Your task to perform on an android device: check android version Image 0: 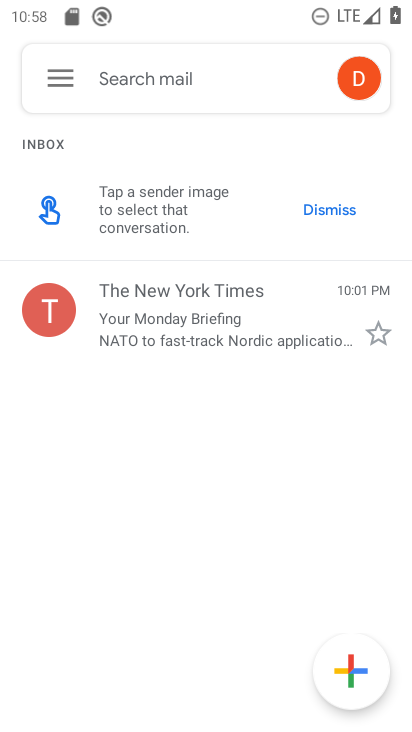
Step 0: press home button
Your task to perform on an android device: check android version Image 1: 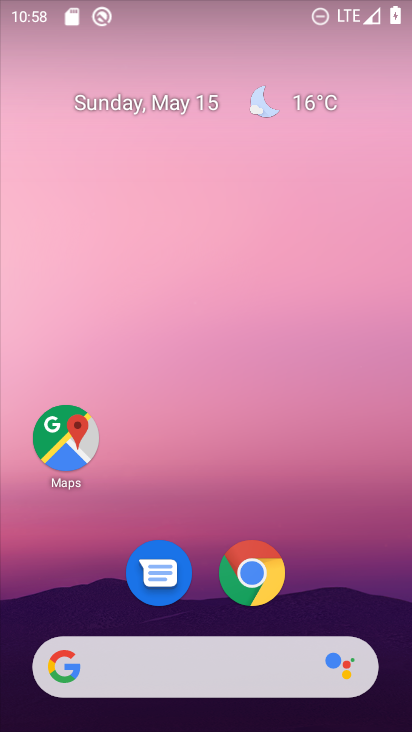
Step 1: drag from (351, 560) to (327, 65)
Your task to perform on an android device: check android version Image 2: 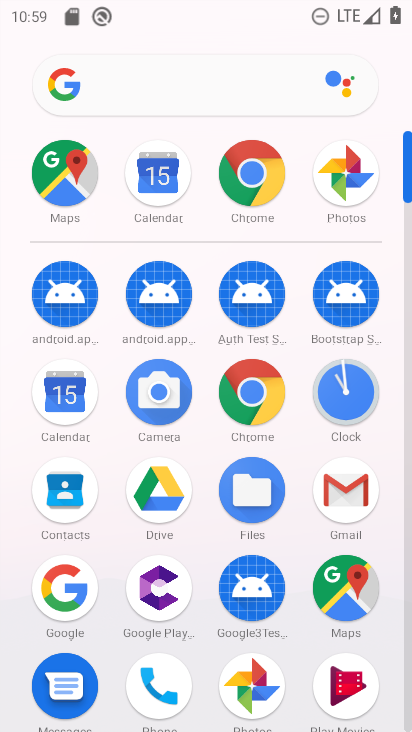
Step 2: click (405, 640)
Your task to perform on an android device: check android version Image 3: 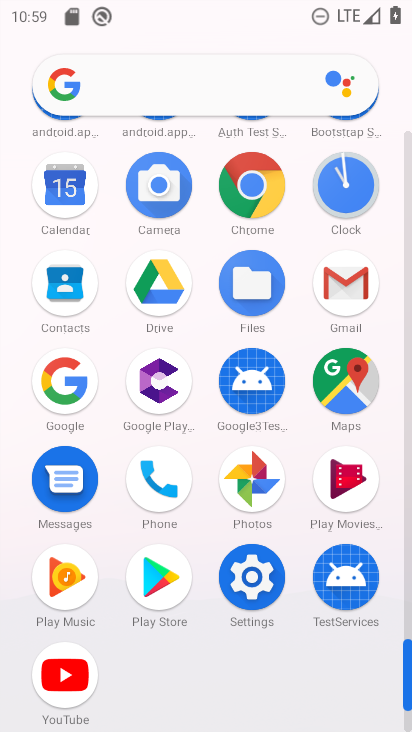
Step 3: click (261, 577)
Your task to perform on an android device: check android version Image 4: 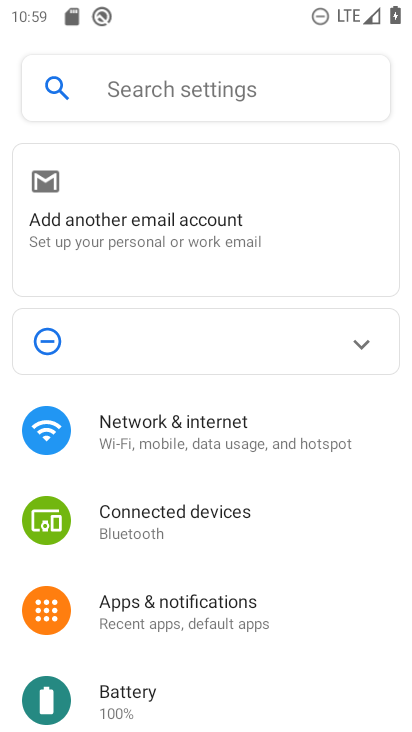
Step 4: drag from (261, 577) to (258, 282)
Your task to perform on an android device: check android version Image 5: 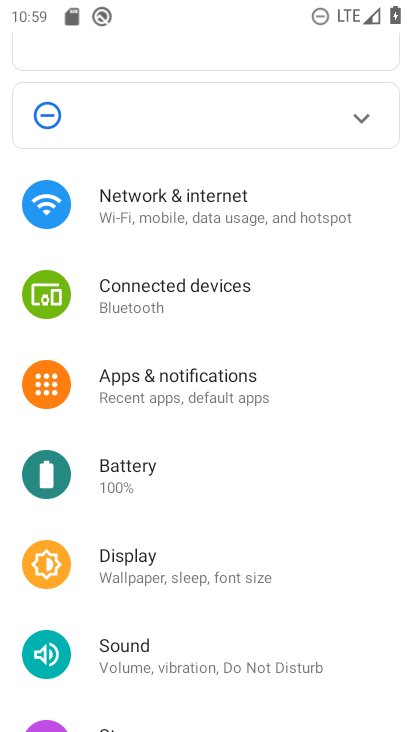
Step 5: drag from (218, 579) to (222, 169)
Your task to perform on an android device: check android version Image 6: 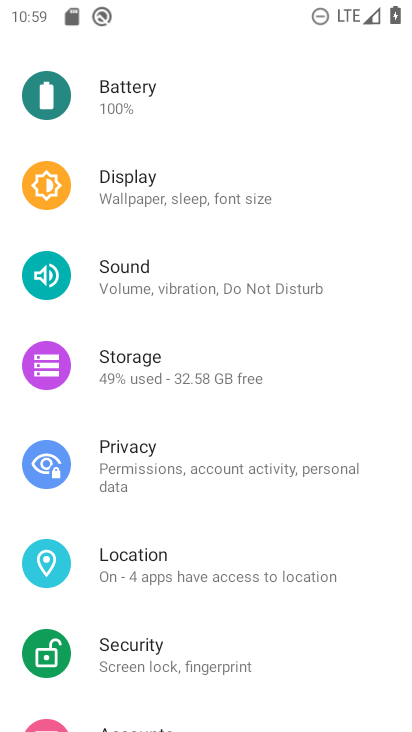
Step 6: drag from (198, 607) to (219, 144)
Your task to perform on an android device: check android version Image 7: 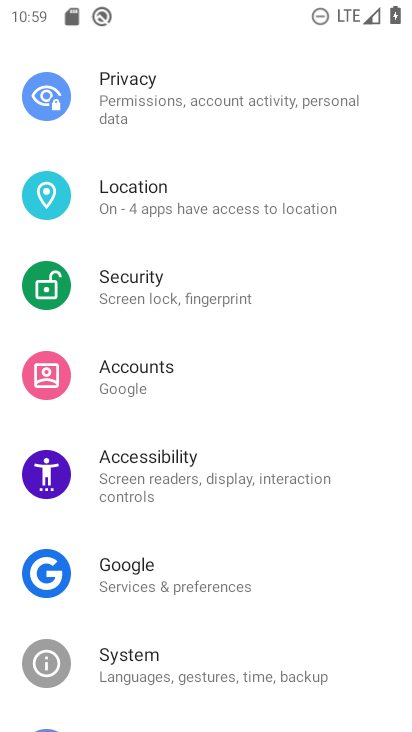
Step 7: drag from (173, 659) to (256, 369)
Your task to perform on an android device: check android version Image 8: 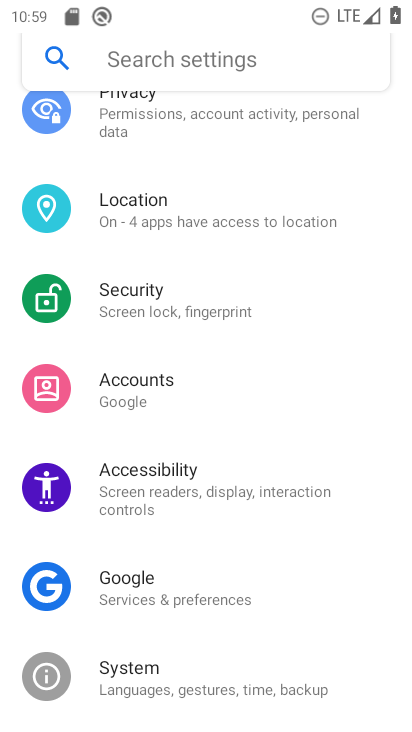
Step 8: drag from (147, 682) to (170, 201)
Your task to perform on an android device: check android version Image 9: 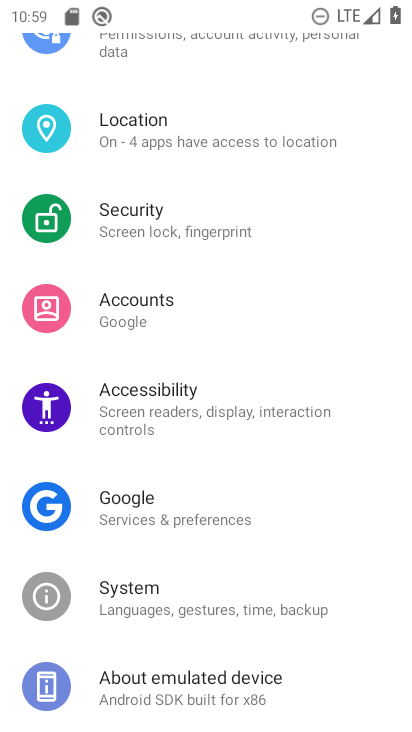
Step 9: click (216, 702)
Your task to perform on an android device: check android version Image 10: 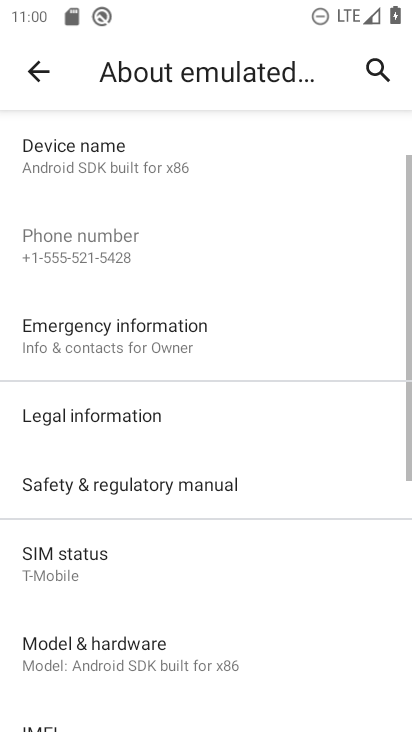
Step 10: drag from (170, 611) to (235, 237)
Your task to perform on an android device: check android version Image 11: 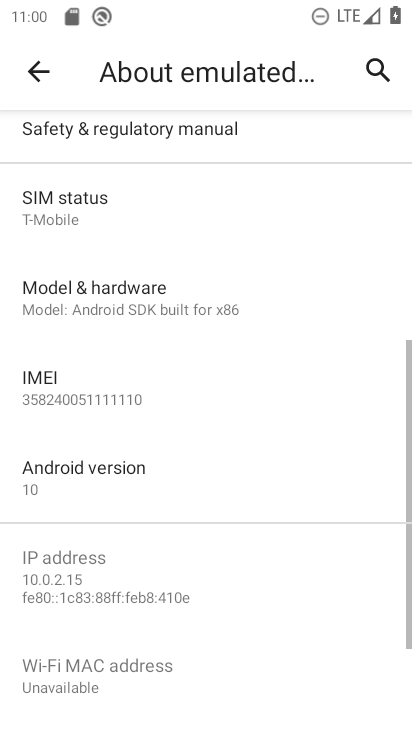
Step 11: click (138, 454)
Your task to perform on an android device: check android version Image 12: 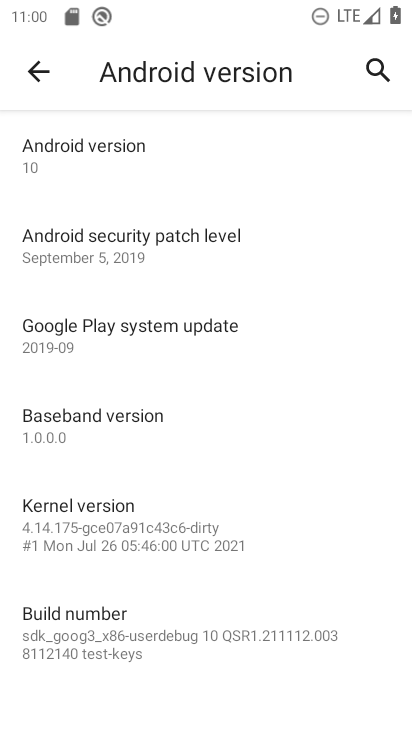
Step 12: task complete